Your task to perform on an android device: toggle location history Image 0: 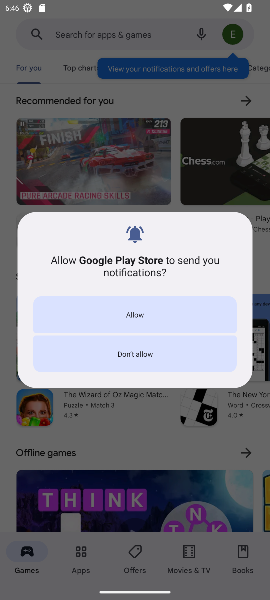
Step 0: click (136, 354)
Your task to perform on an android device: toggle location history Image 1: 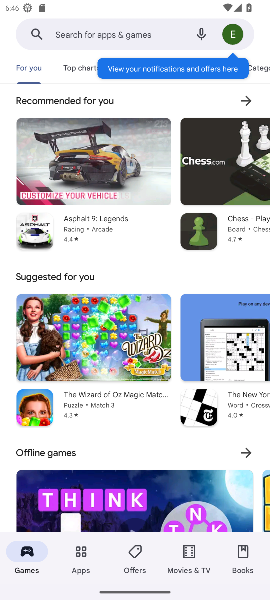
Step 1: press home button
Your task to perform on an android device: toggle location history Image 2: 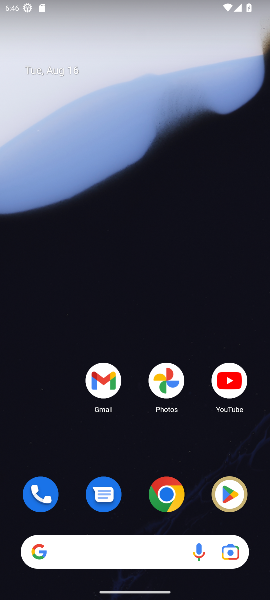
Step 2: drag from (61, 452) to (96, 155)
Your task to perform on an android device: toggle location history Image 3: 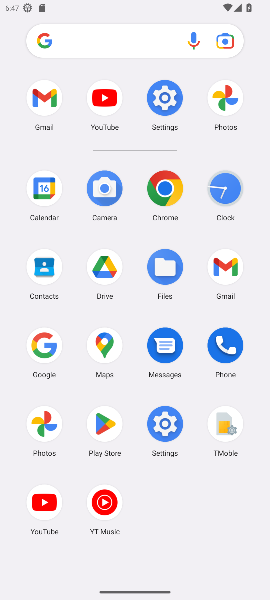
Step 3: click (108, 343)
Your task to perform on an android device: toggle location history Image 4: 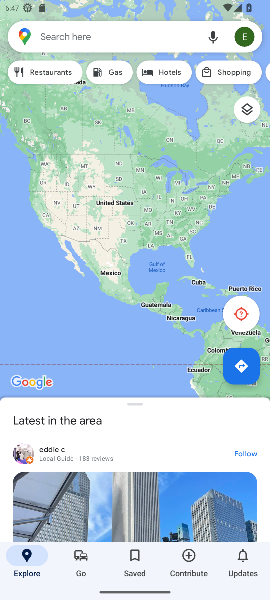
Step 4: task complete